Your task to perform on an android device: change text size in settings app Image 0: 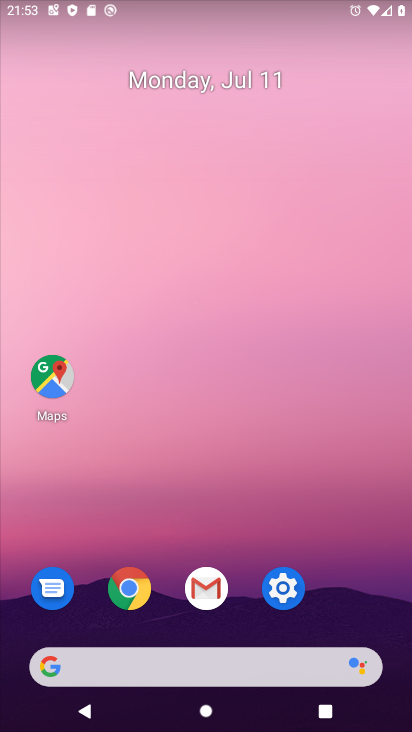
Step 0: drag from (250, 689) to (294, 130)
Your task to perform on an android device: change text size in settings app Image 1: 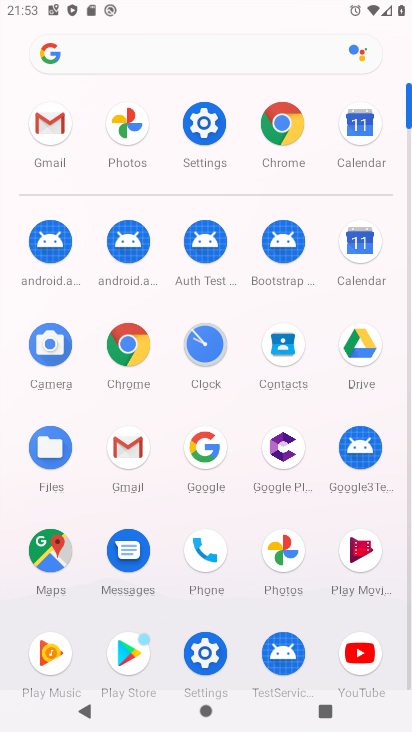
Step 1: click (204, 654)
Your task to perform on an android device: change text size in settings app Image 2: 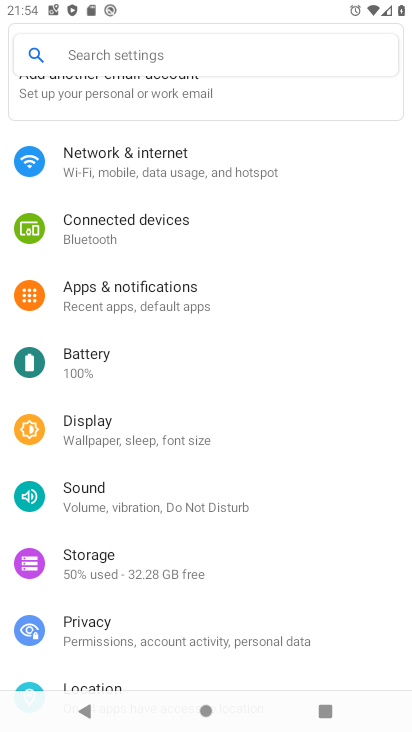
Step 2: click (157, 52)
Your task to perform on an android device: change text size in settings app Image 3: 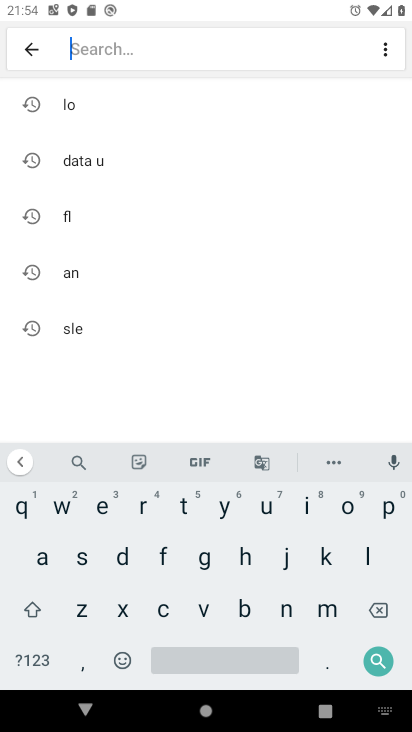
Step 3: click (73, 561)
Your task to perform on an android device: change text size in settings app Image 4: 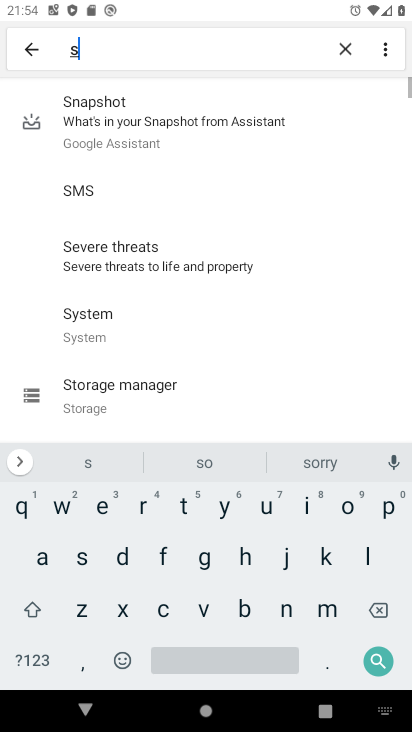
Step 4: click (305, 505)
Your task to perform on an android device: change text size in settings app Image 5: 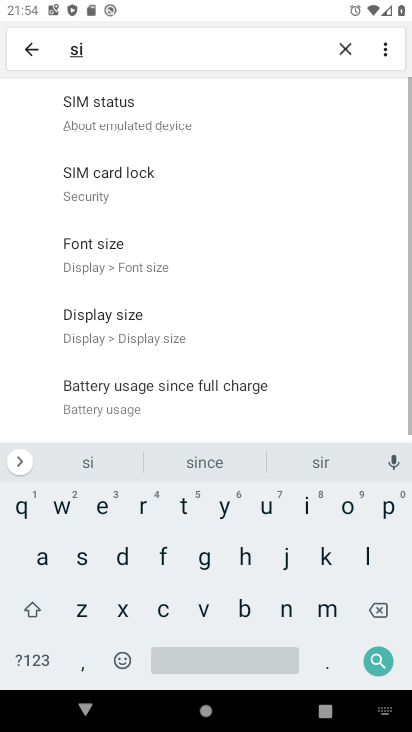
Step 5: click (83, 610)
Your task to perform on an android device: change text size in settings app Image 6: 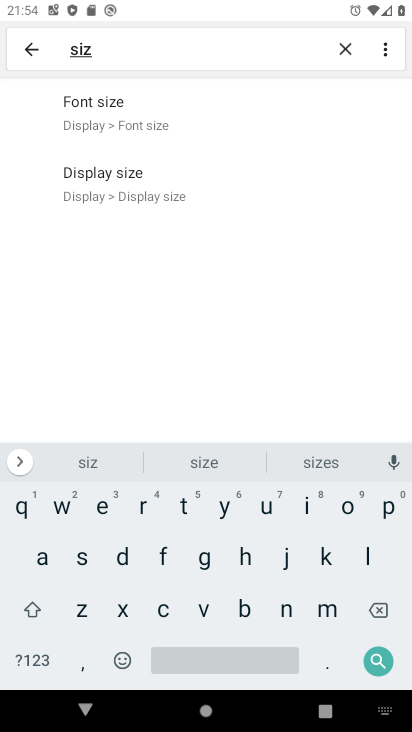
Step 6: click (136, 119)
Your task to perform on an android device: change text size in settings app Image 7: 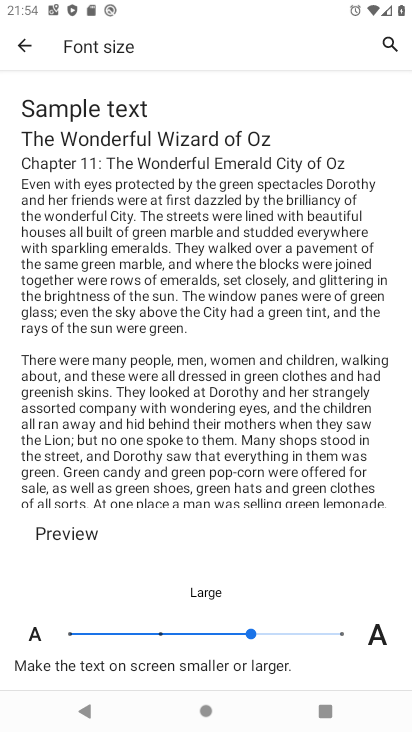
Step 7: click (303, 631)
Your task to perform on an android device: change text size in settings app Image 8: 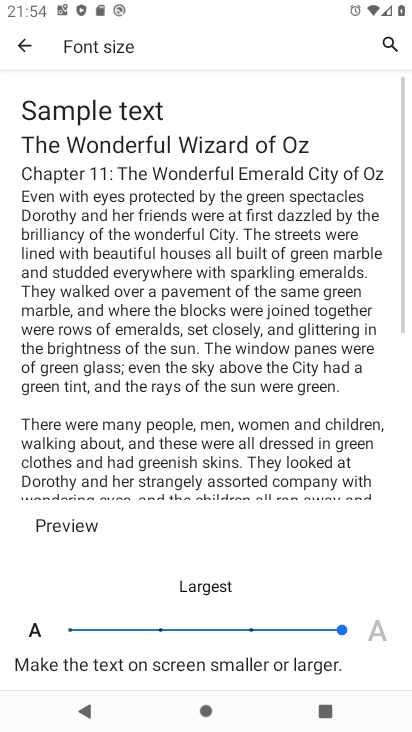
Step 8: click (153, 630)
Your task to perform on an android device: change text size in settings app Image 9: 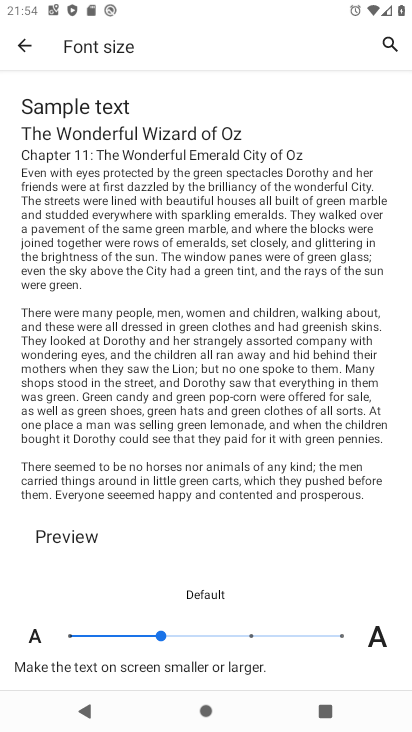
Step 9: task complete